Your task to perform on an android device: install app "Move to iOS" Image 0: 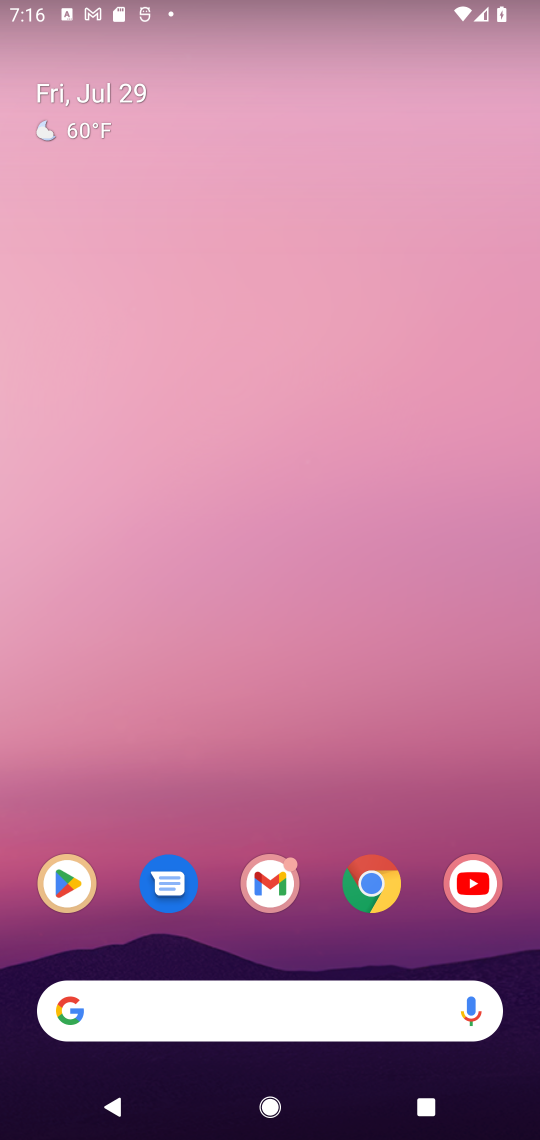
Step 0: click (43, 878)
Your task to perform on an android device: install app "Move to iOS" Image 1: 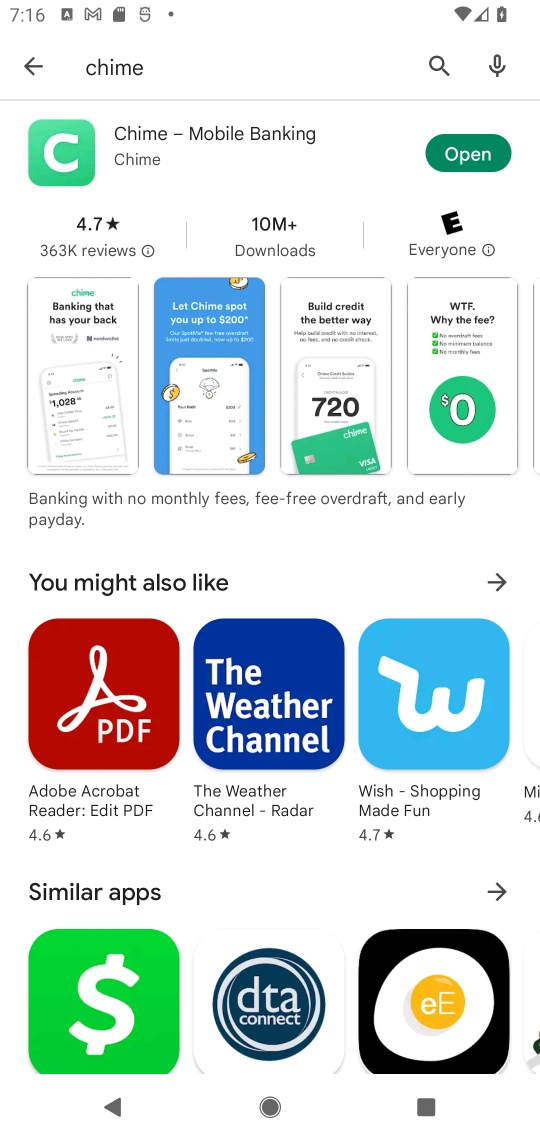
Step 1: click (429, 41)
Your task to perform on an android device: install app "Move to iOS" Image 2: 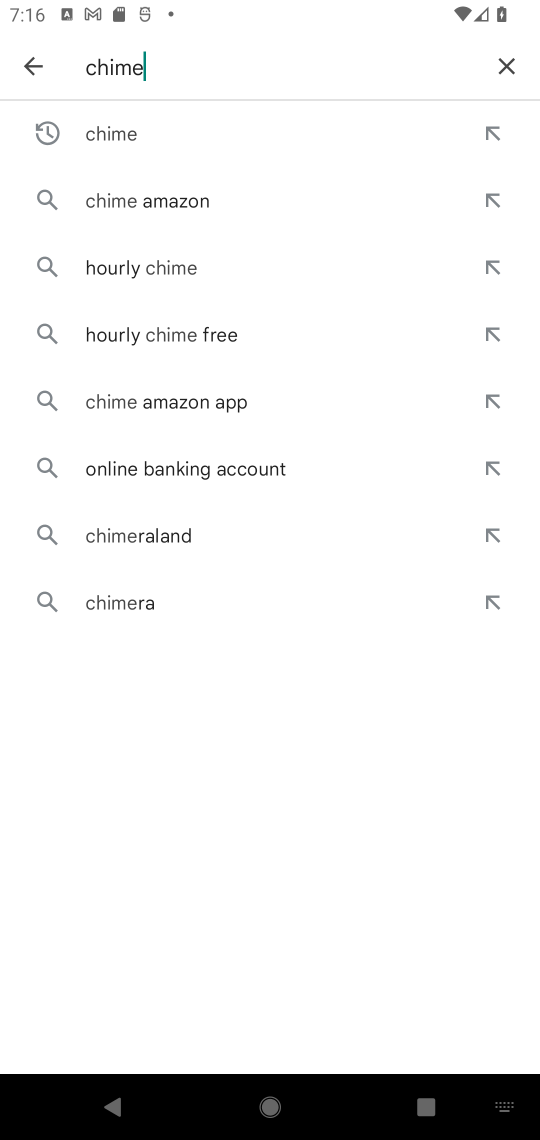
Step 2: click (491, 63)
Your task to perform on an android device: install app "Move to iOS" Image 3: 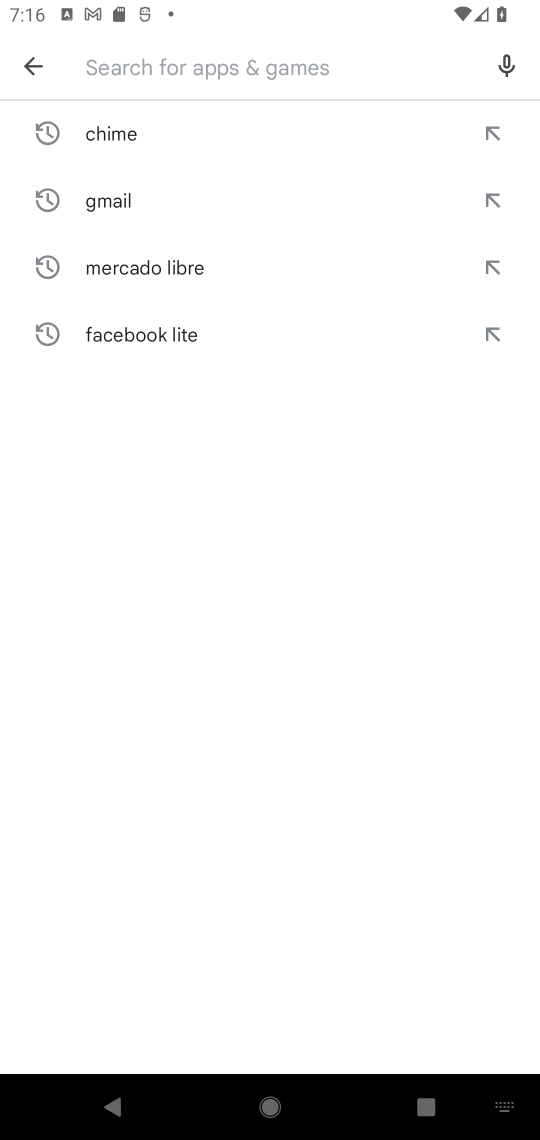
Step 3: type "move to ios"
Your task to perform on an android device: install app "Move to iOS" Image 4: 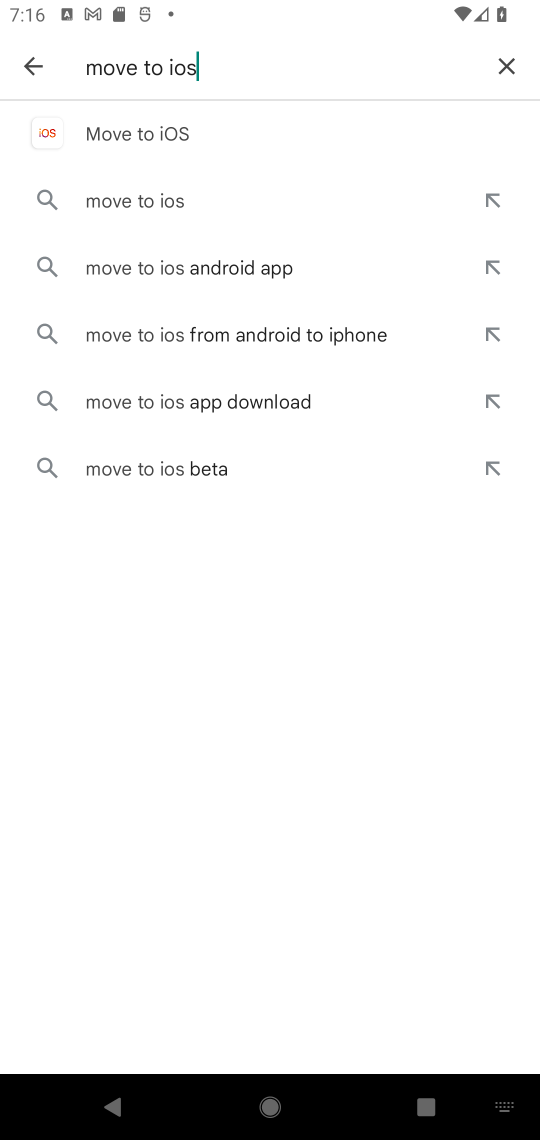
Step 4: click (118, 147)
Your task to perform on an android device: install app "Move to iOS" Image 5: 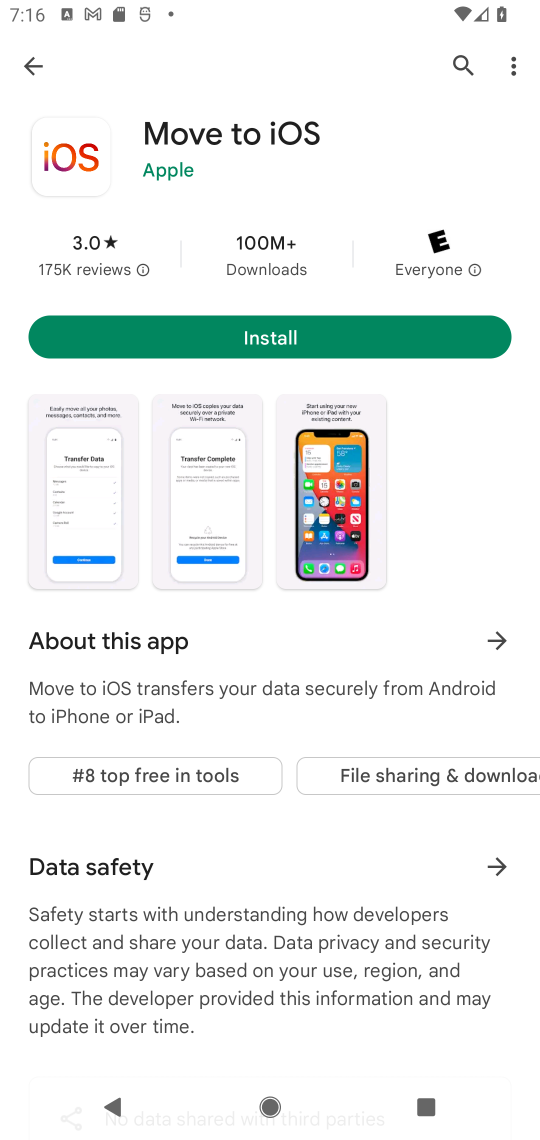
Step 5: click (248, 338)
Your task to perform on an android device: install app "Move to iOS" Image 6: 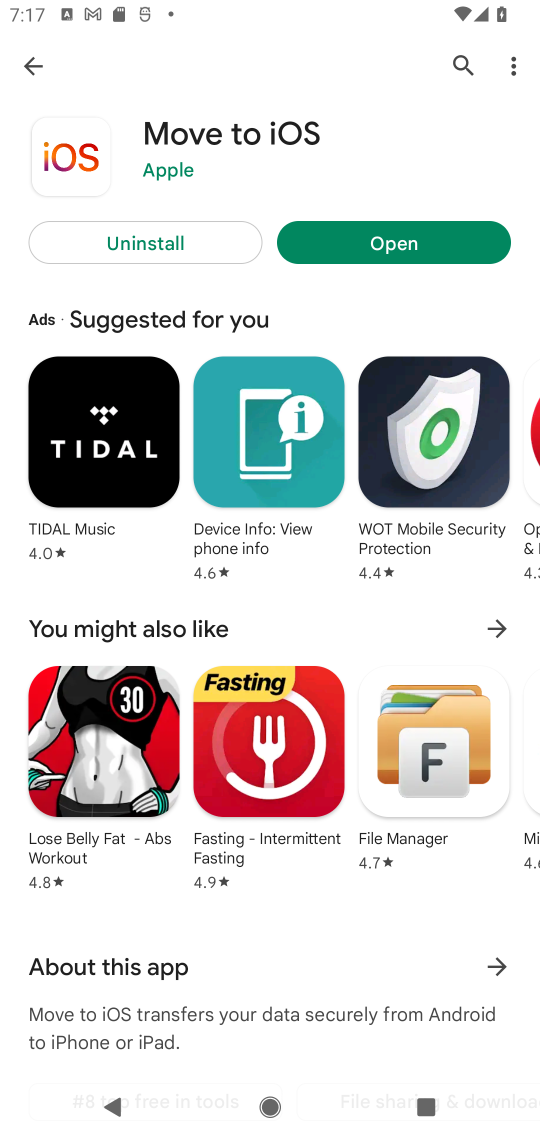
Step 6: task complete